Your task to perform on an android device: What's on my calendar today? Image 0: 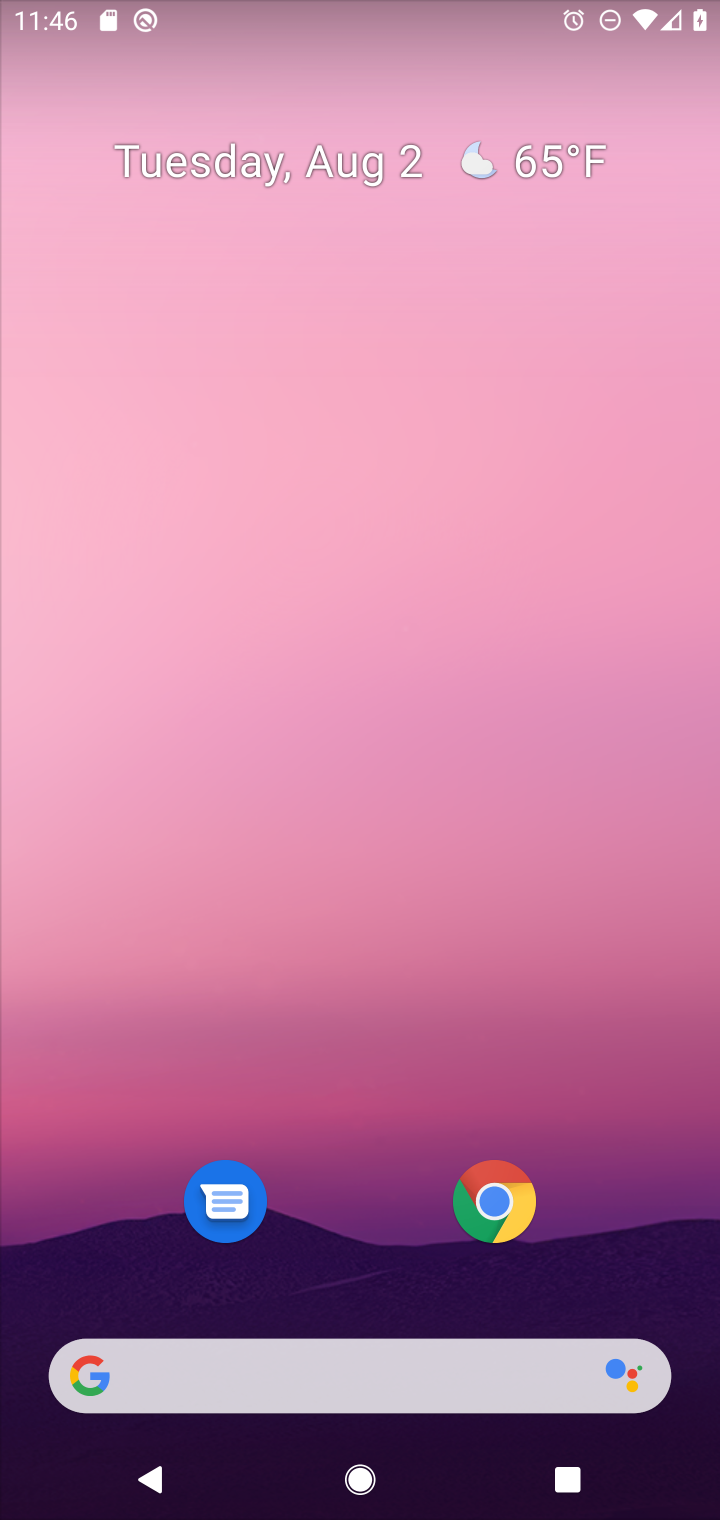
Step 0: click (242, 71)
Your task to perform on an android device: What's on my calendar today? Image 1: 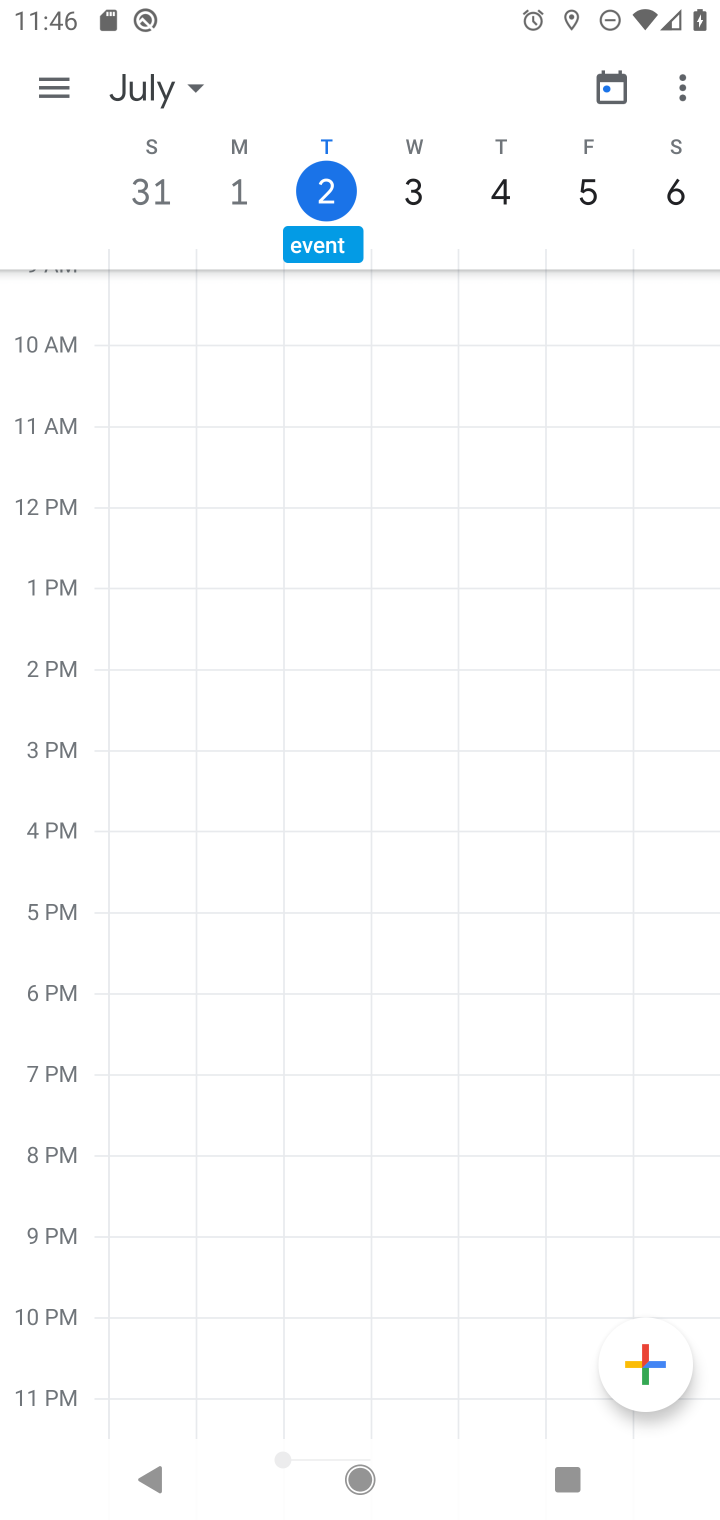
Step 1: click (327, 205)
Your task to perform on an android device: What's on my calendar today? Image 2: 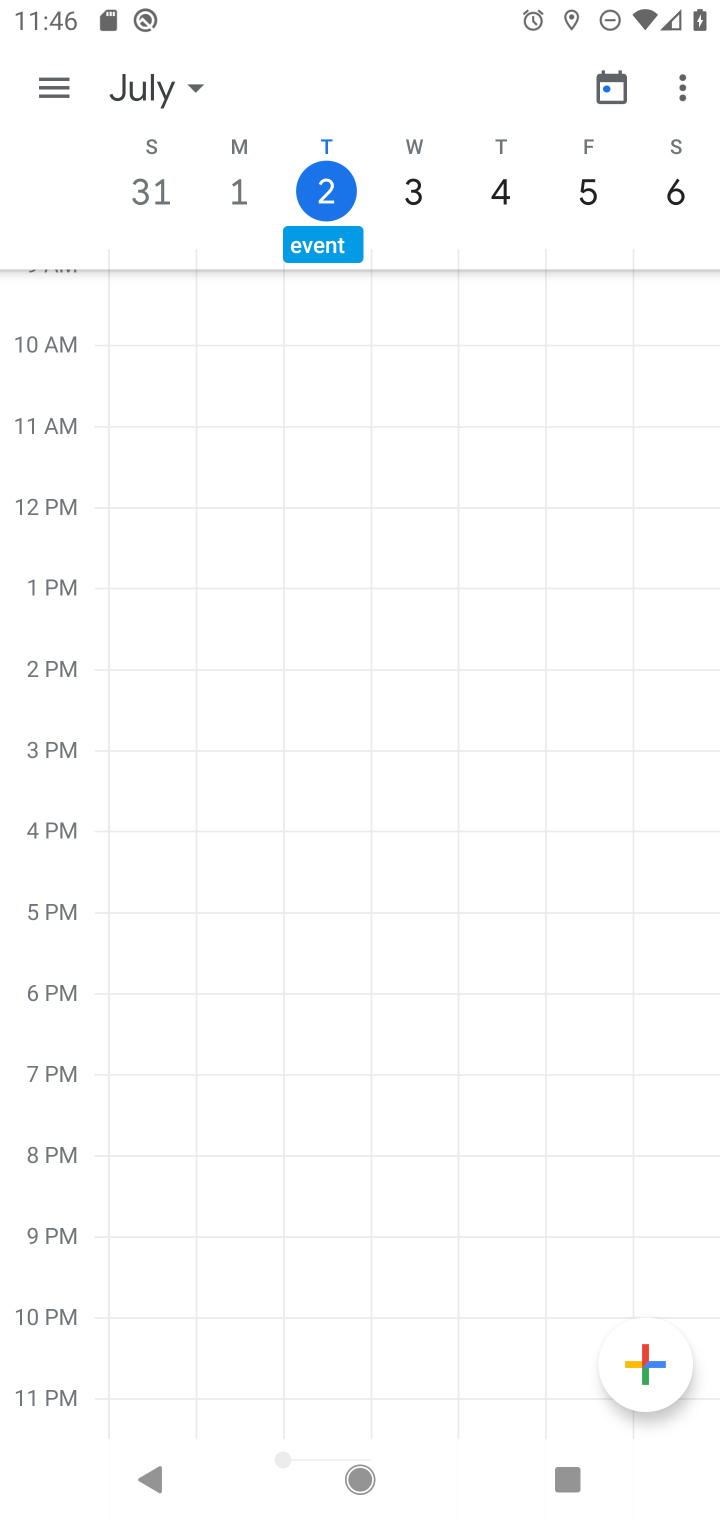
Step 2: task complete